Your task to perform on an android device: Open sound settings Image 0: 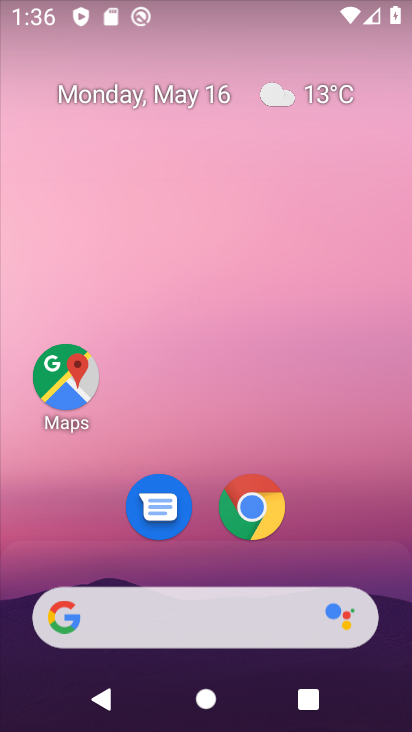
Step 0: drag from (384, 564) to (390, 125)
Your task to perform on an android device: Open sound settings Image 1: 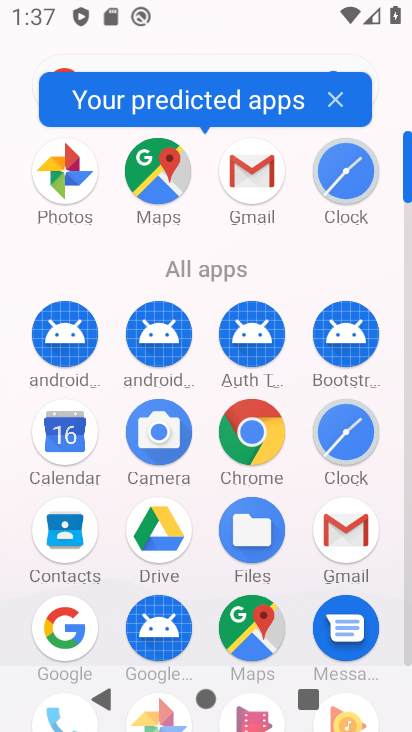
Step 1: drag from (198, 576) to (215, 251)
Your task to perform on an android device: Open sound settings Image 2: 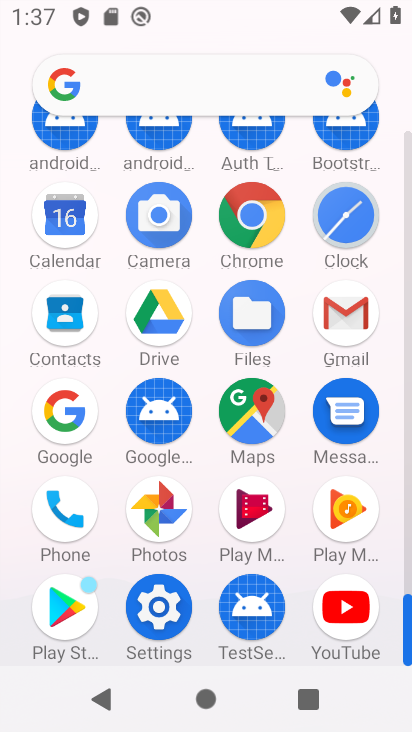
Step 2: click (164, 624)
Your task to perform on an android device: Open sound settings Image 3: 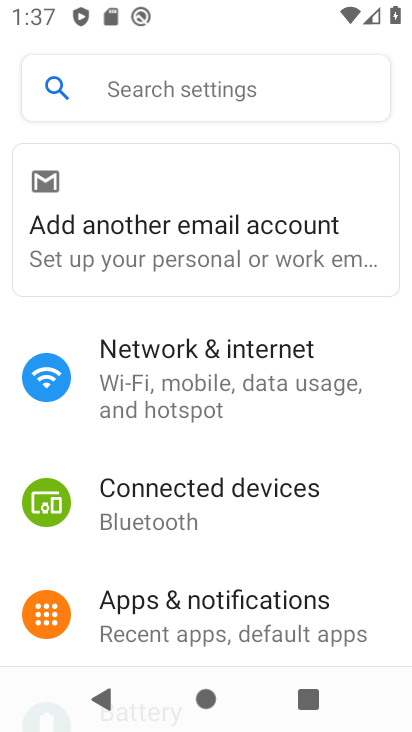
Step 3: drag from (379, 582) to (393, 340)
Your task to perform on an android device: Open sound settings Image 4: 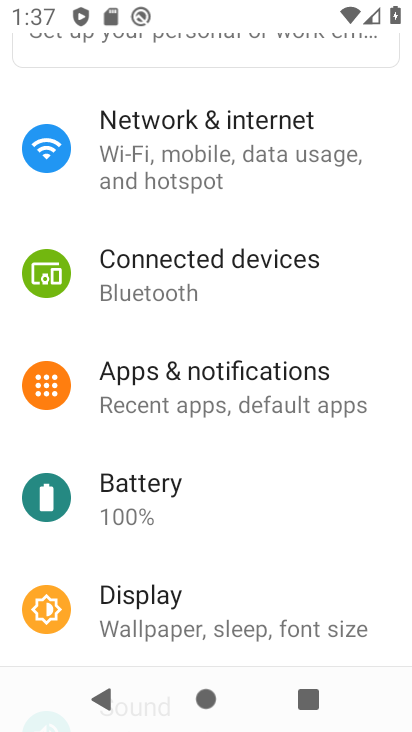
Step 4: drag from (362, 550) to (389, 374)
Your task to perform on an android device: Open sound settings Image 5: 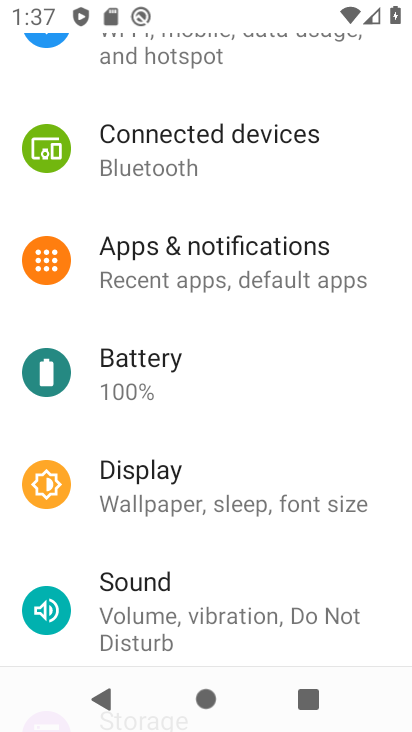
Step 5: drag from (369, 640) to (377, 415)
Your task to perform on an android device: Open sound settings Image 6: 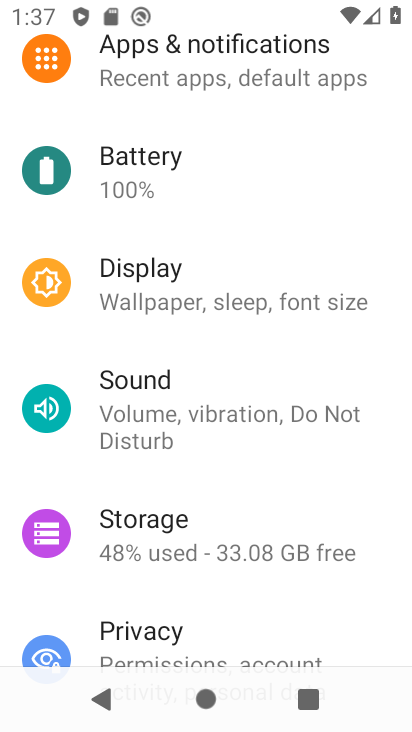
Step 6: click (239, 421)
Your task to perform on an android device: Open sound settings Image 7: 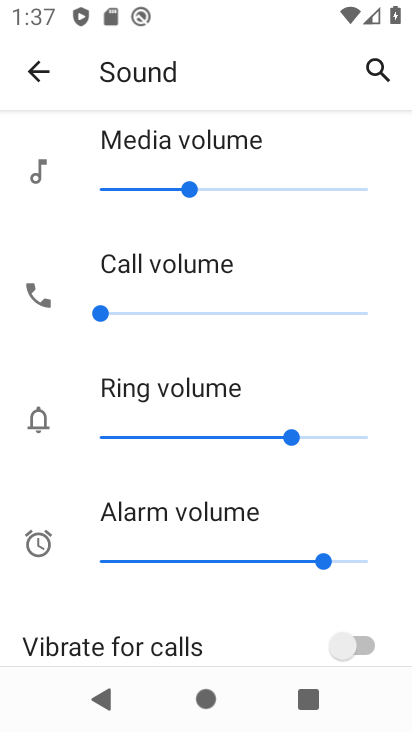
Step 7: task complete